Your task to perform on an android device: What's the weather? Image 0: 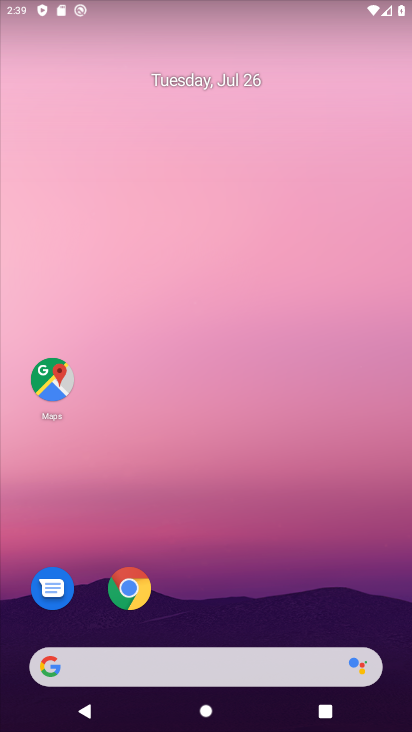
Step 0: drag from (257, 505) to (306, 45)
Your task to perform on an android device: What's the weather? Image 1: 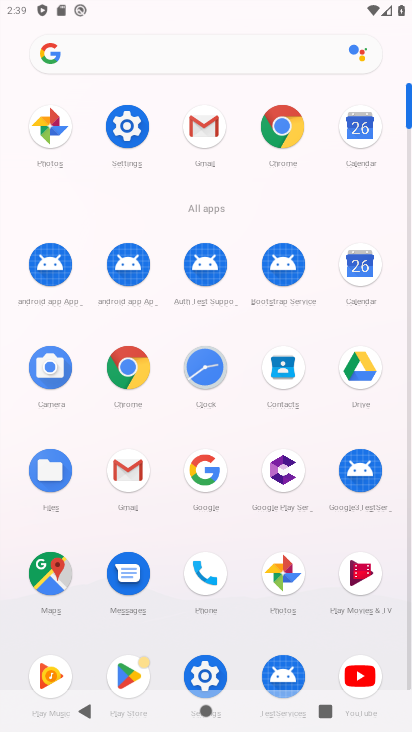
Step 1: click (213, 485)
Your task to perform on an android device: What's the weather? Image 2: 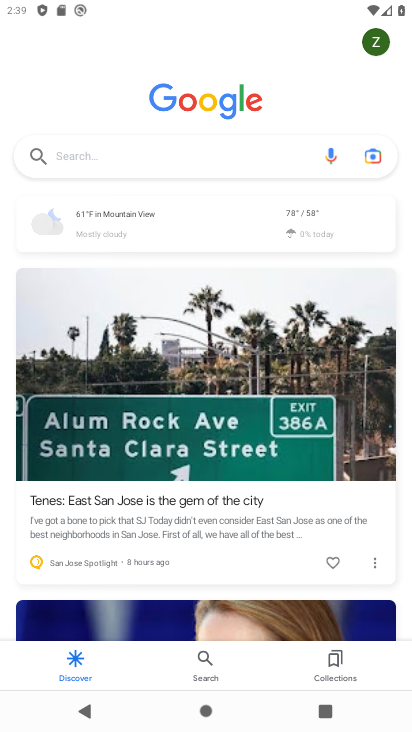
Step 2: click (118, 218)
Your task to perform on an android device: What's the weather? Image 3: 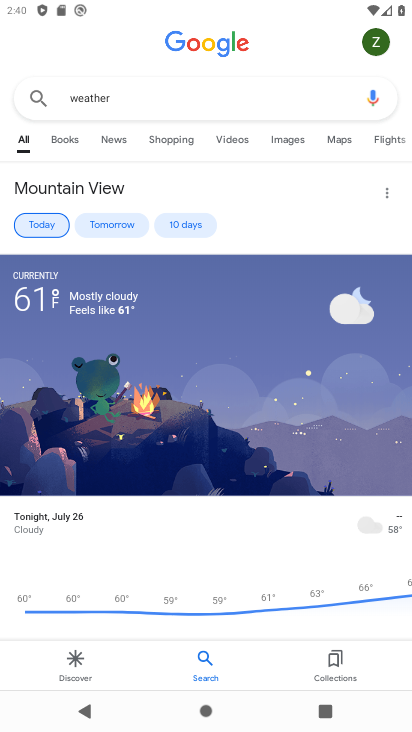
Step 3: task complete